Your task to perform on an android device: Search for Mexican restaurants on Maps Image 0: 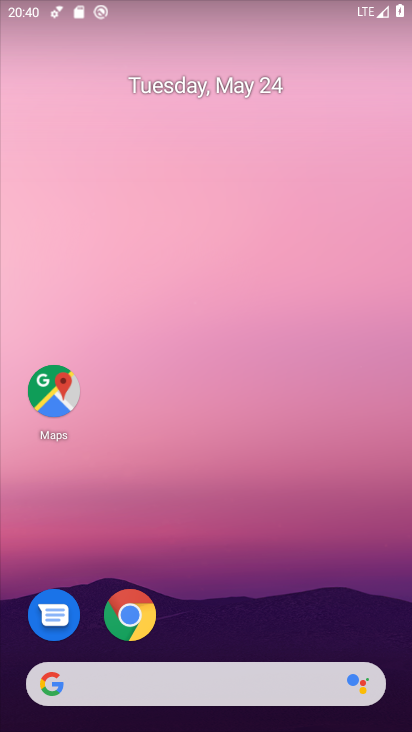
Step 0: drag from (230, 639) to (222, 268)
Your task to perform on an android device: Search for Mexican restaurants on Maps Image 1: 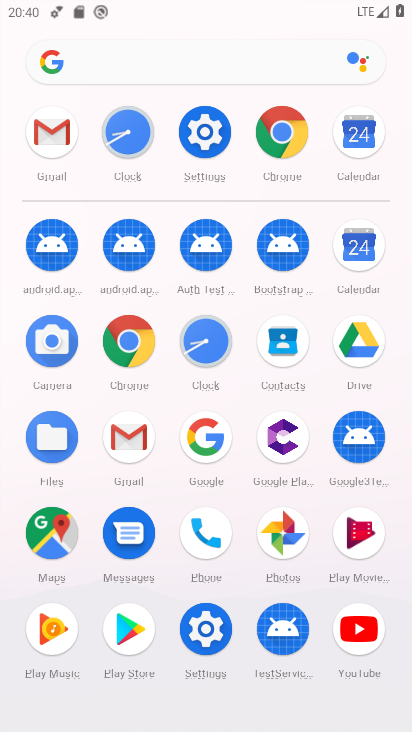
Step 1: click (280, 125)
Your task to perform on an android device: Search for Mexican restaurants on Maps Image 2: 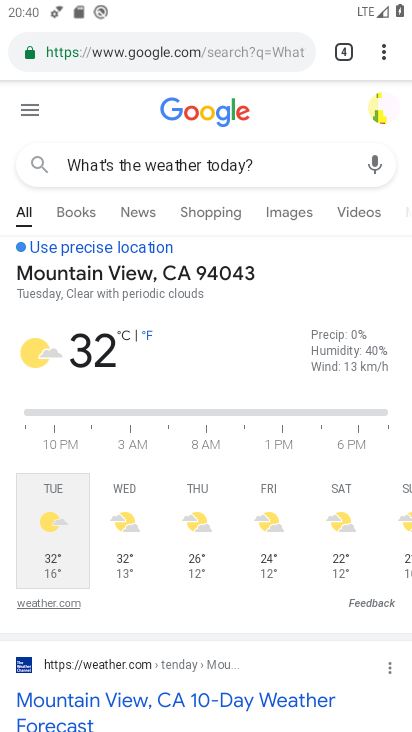
Step 2: press home button
Your task to perform on an android device: Search for Mexican restaurants on Maps Image 3: 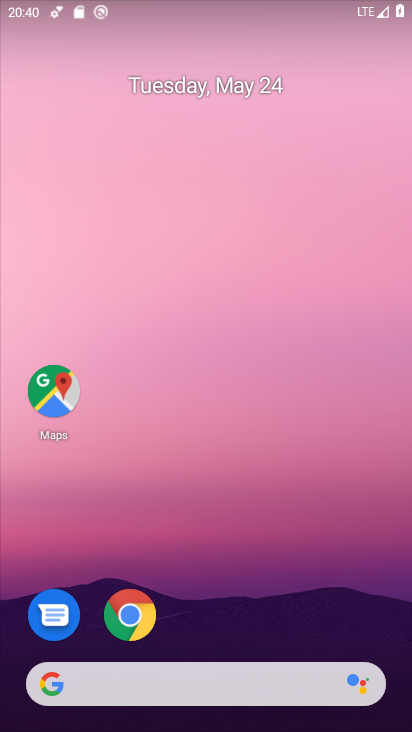
Step 3: drag from (212, 536) to (223, 243)
Your task to perform on an android device: Search for Mexican restaurants on Maps Image 4: 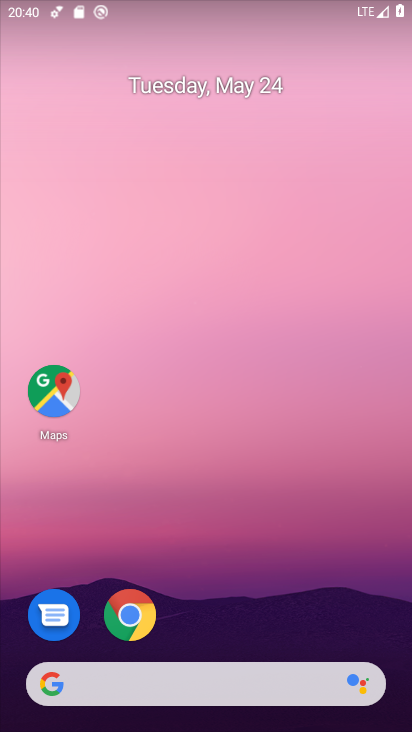
Step 4: click (44, 382)
Your task to perform on an android device: Search for Mexican restaurants on Maps Image 5: 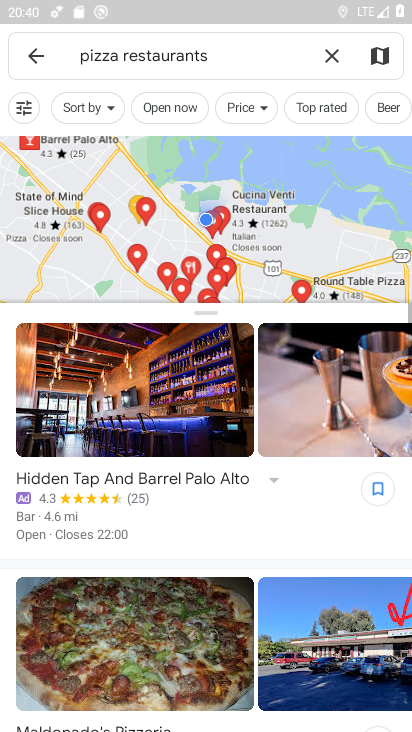
Step 5: click (326, 53)
Your task to perform on an android device: Search for Mexican restaurants on Maps Image 6: 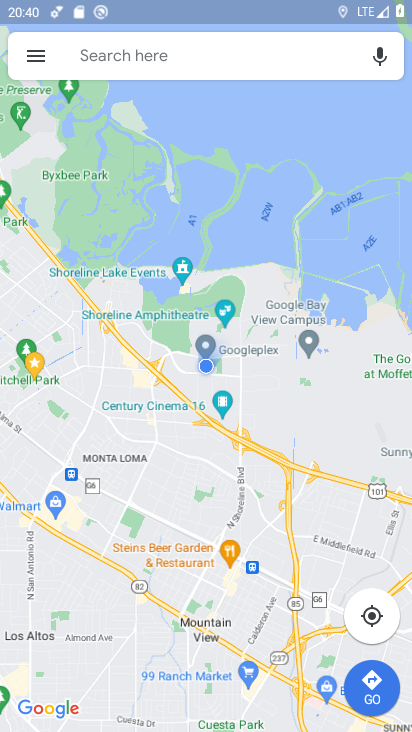
Step 6: click (176, 45)
Your task to perform on an android device: Search for Mexican restaurants on Maps Image 7: 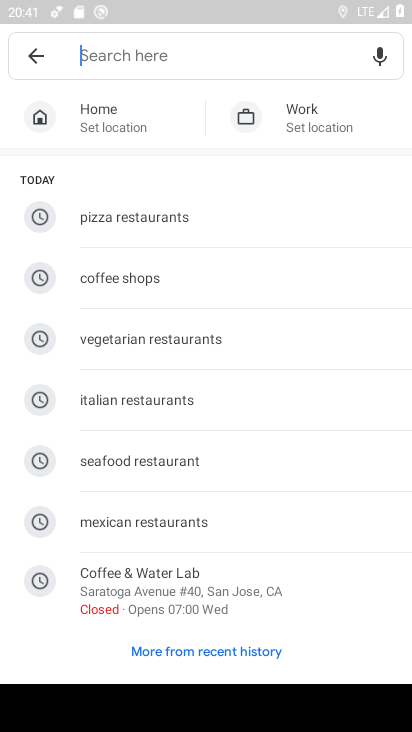
Step 7: type "Mexican restaurants "
Your task to perform on an android device: Search for Mexican restaurants on Maps Image 8: 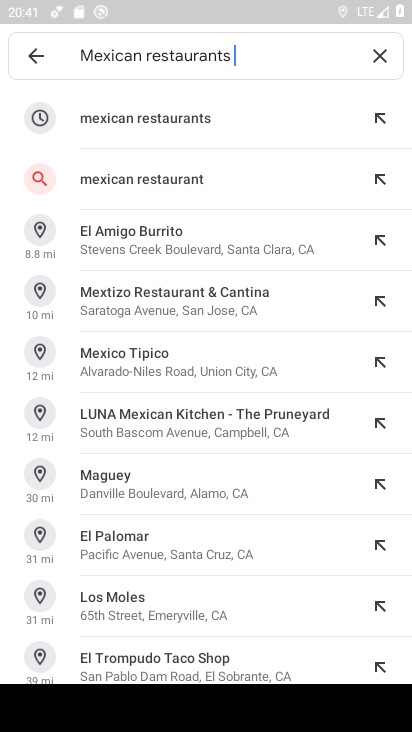
Step 8: click (166, 109)
Your task to perform on an android device: Search for Mexican restaurants on Maps Image 9: 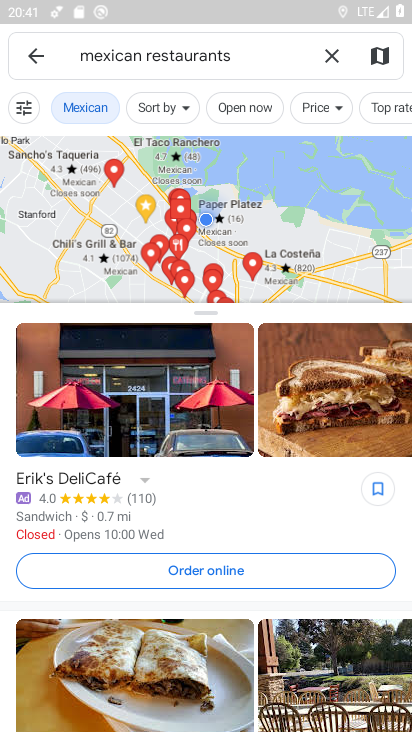
Step 9: task complete